Your task to perform on an android device: Do I have any events today? Image 0: 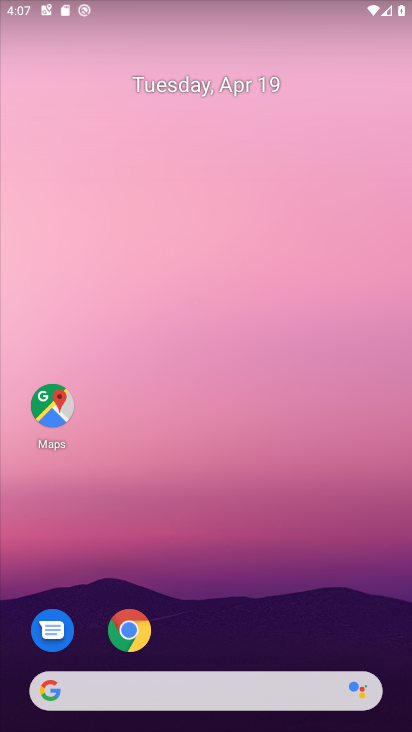
Step 0: drag from (307, 539) to (328, 88)
Your task to perform on an android device: Do I have any events today? Image 1: 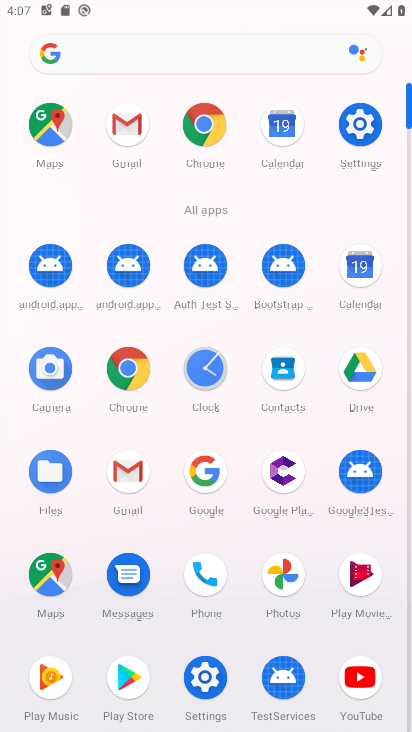
Step 1: click (348, 283)
Your task to perform on an android device: Do I have any events today? Image 2: 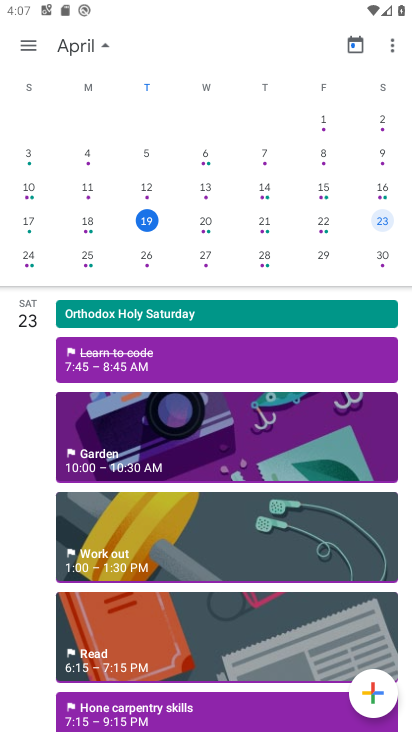
Step 2: click (147, 223)
Your task to perform on an android device: Do I have any events today? Image 3: 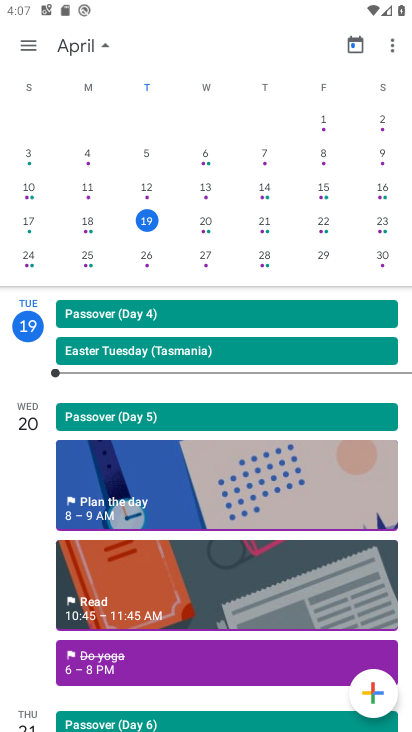
Step 3: click (144, 220)
Your task to perform on an android device: Do I have any events today? Image 4: 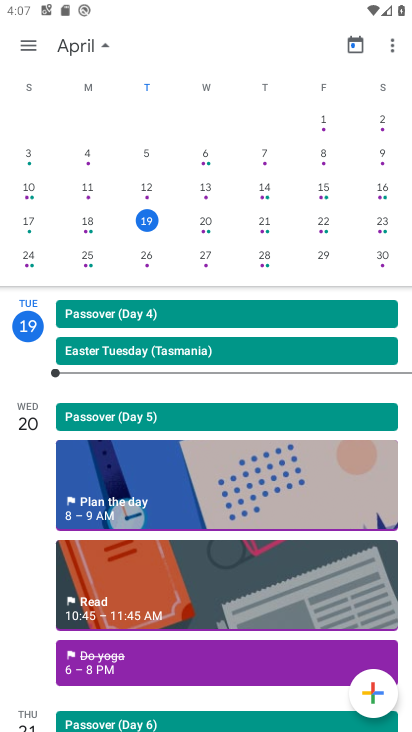
Step 4: task complete